Your task to perform on an android device: Show me the alarms in the clock app Image 0: 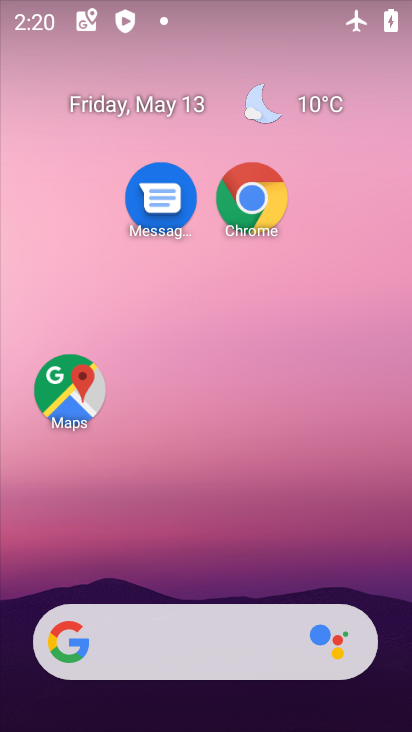
Step 0: drag from (252, 583) to (292, 27)
Your task to perform on an android device: Show me the alarms in the clock app Image 1: 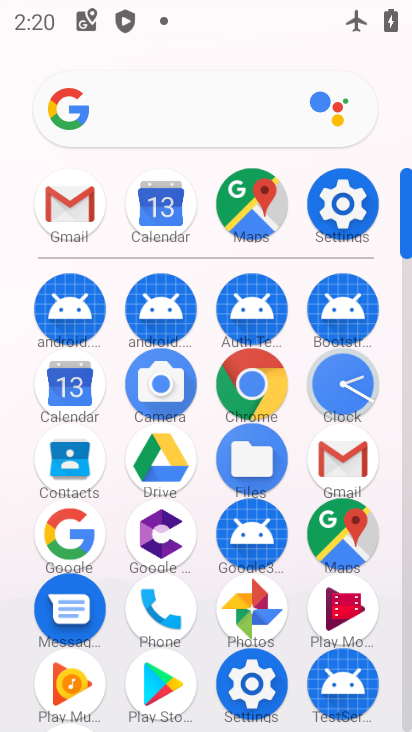
Step 1: click (335, 372)
Your task to perform on an android device: Show me the alarms in the clock app Image 2: 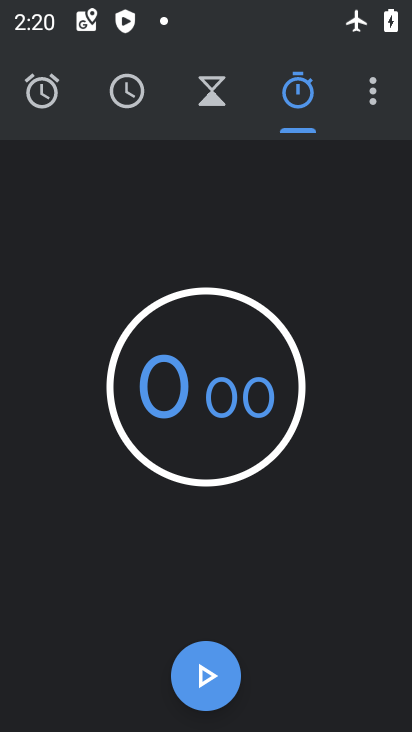
Step 2: click (380, 85)
Your task to perform on an android device: Show me the alarms in the clock app Image 3: 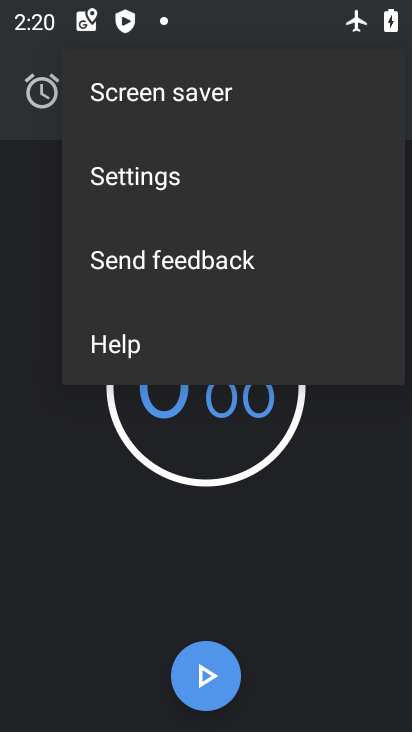
Step 3: click (130, 472)
Your task to perform on an android device: Show me the alarms in the clock app Image 4: 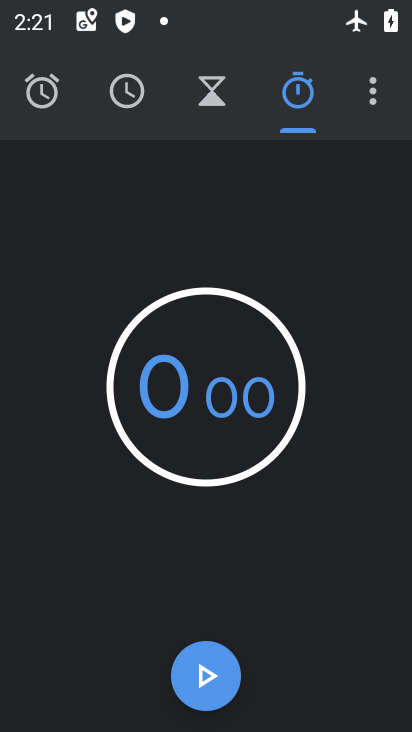
Step 4: click (54, 105)
Your task to perform on an android device: Show me the alarms in the clock app Image 5: 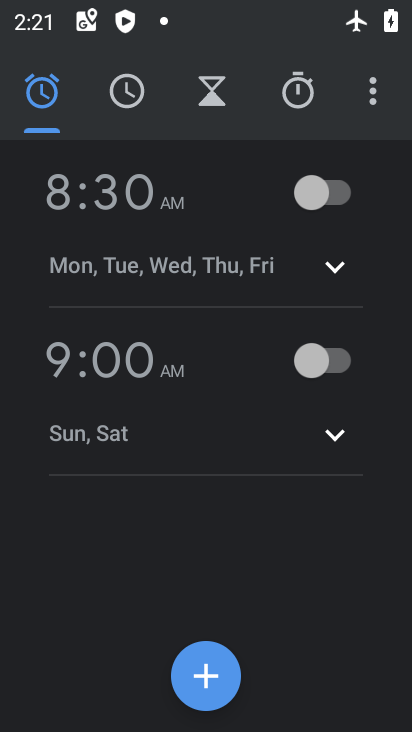
Step 5: task complete